Your task to perform on an android device: turn off priority inbox in the gmail app Image 0: 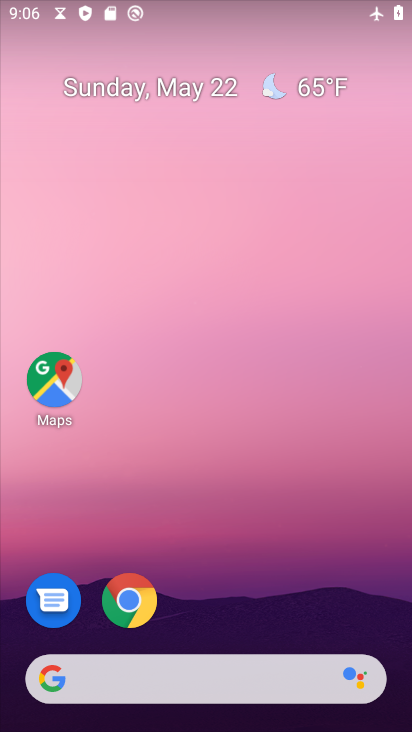
Step 0: drag from (187, 253) to (161, 29)
Your task to perform on an android device: turn off priority inbox in the gmail app Image 1: 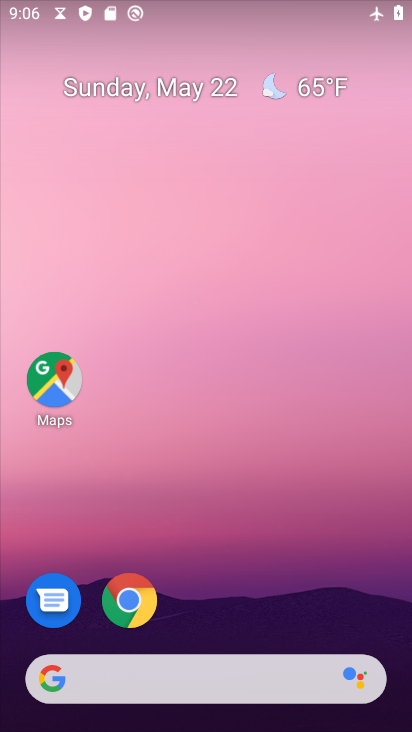
Step 1: drag from (222, 543) to (251, 257)
Your task to perform on an android device: turn off priority inbox in the gmail app Image 2: 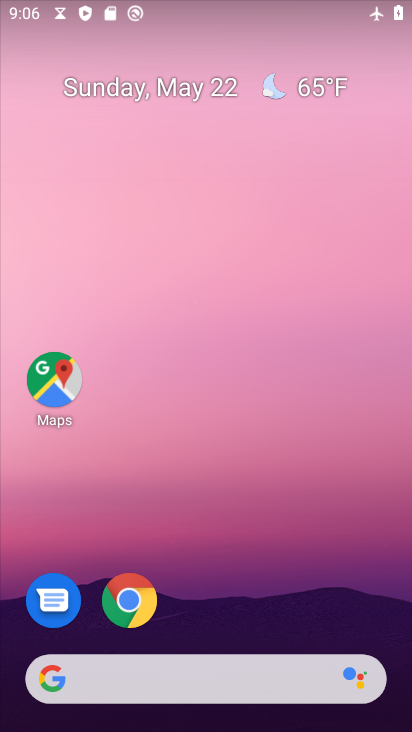
Step 2: drag from (200, 570) to (226, 105)
Your task to perform on an android device: turn off priority inbox in the gmail app Image 3: 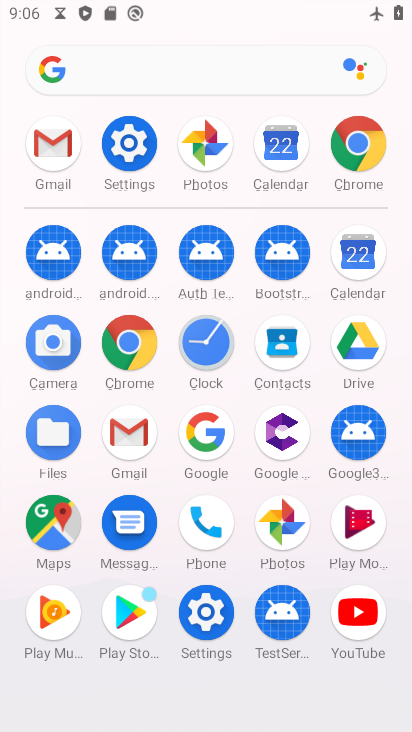
Step 3: drag from (220, 567) to (208, 31)
Your task to perform on an android device: turn off priority inbox in the gmail app Image 4: 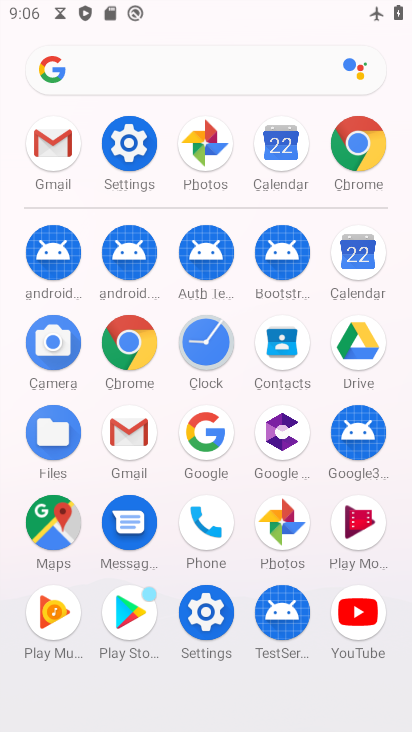
Step 4: click (49, 171)
Your task to perform on an android device: turn off priority inbox in the gmail app Image 5: 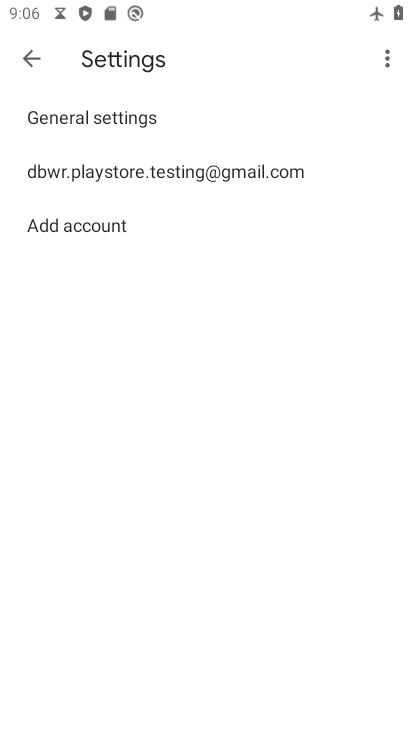
Step 5: click (49, 171)
Your task to perform on an android device: turn off priority inbox in the gmail app Image 6: 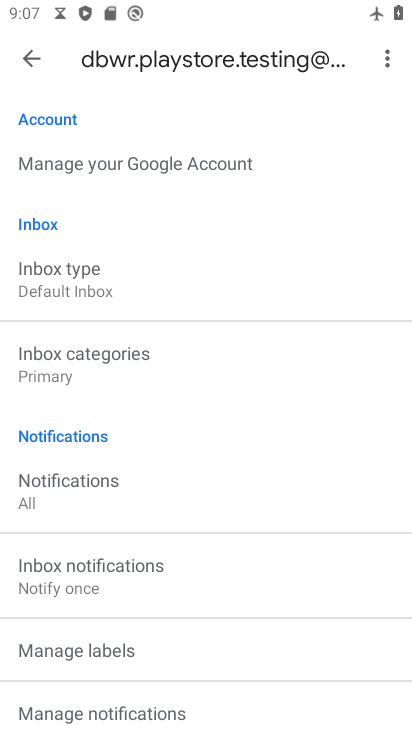
Step 6: click (59, 293)
Your task to perform on an android device: turn off priority inbox in the gmail app Image 7: 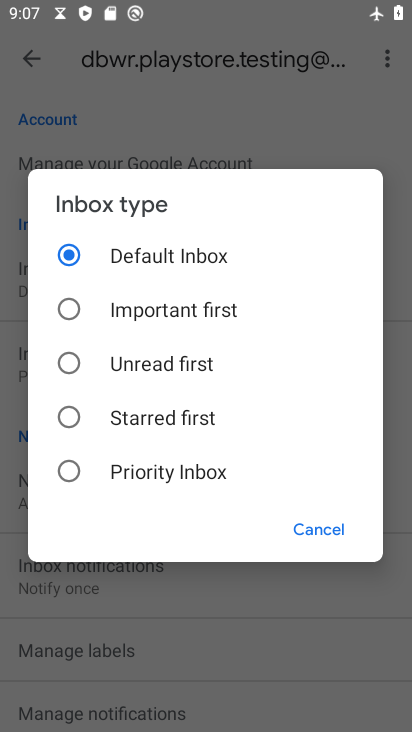
Step 7: task complete